Your task to perform on an android device: toggle translation in the chrome app Image 0: 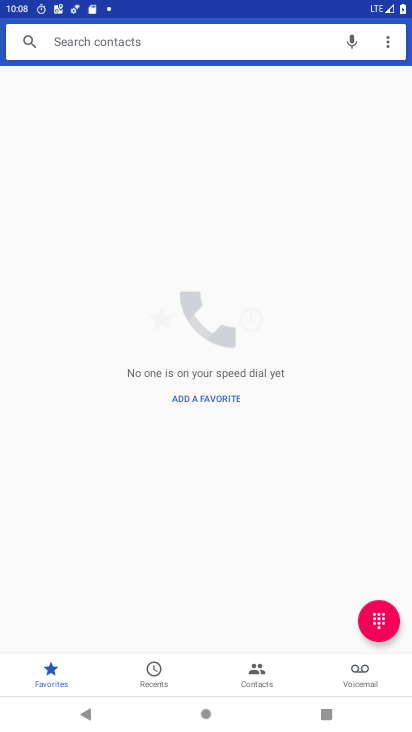
Step 0: press home button
Your task to perform on an android device: toggle translation in the chrome app Image 1: 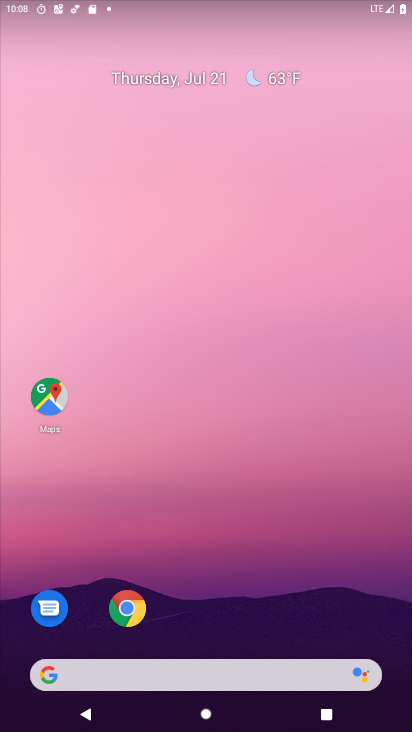
Step 1: drag from (229, 635) to (224, 219)
Your task to perform on an android device: toggle translation in the chrome app Image 2: 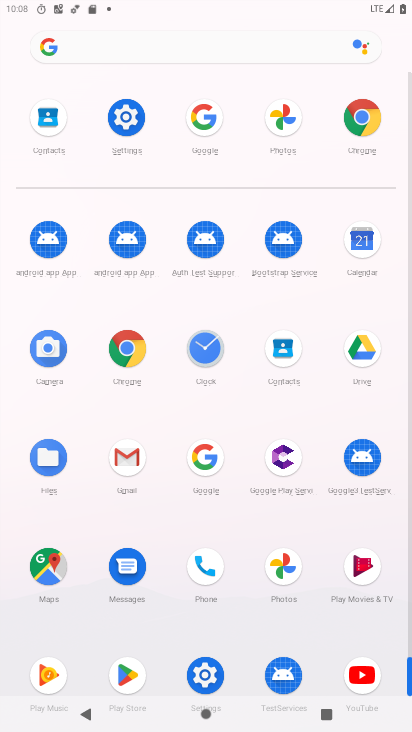
Step 2: click (367, 141)
Your task to perform on an android device: toggle translation in the chrome app Image 3: 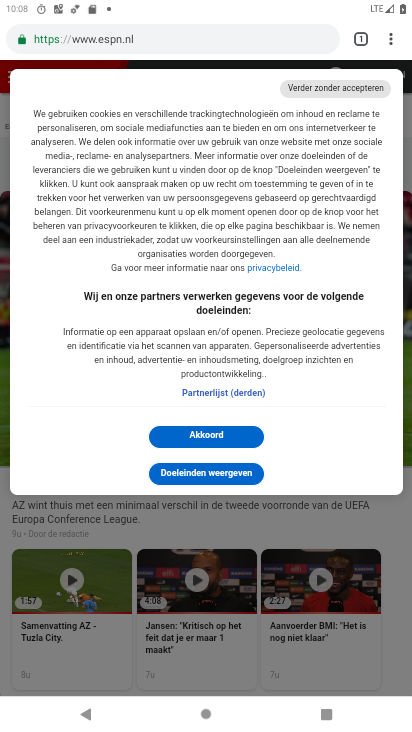
Step 3: click (391, 38)
Your task to perform on an android device: toggle translation in the chrome app Image 4: 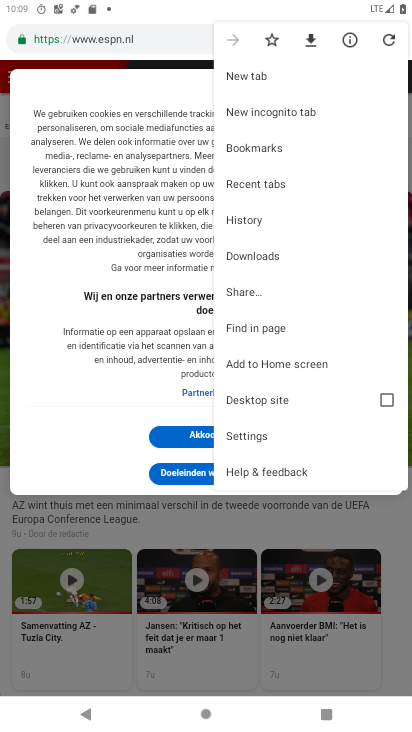
Step 4: task complete